Your task to perform on an android device: What's the weather going to be this weekend? Image 0: 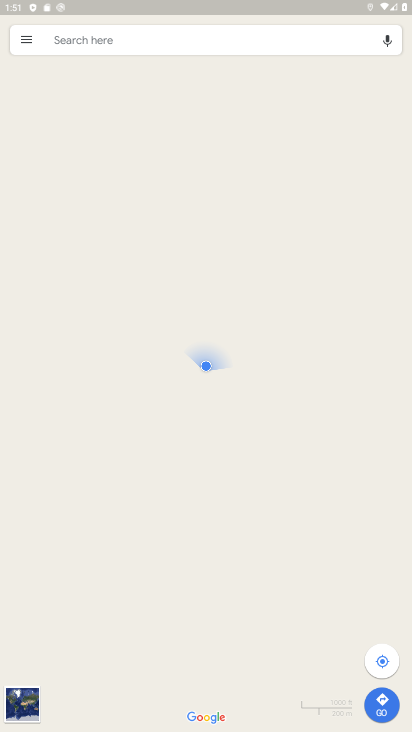
Step 0: press home button
Your task to perform on an android device: What's the weather going to be this weekend? Image 1: 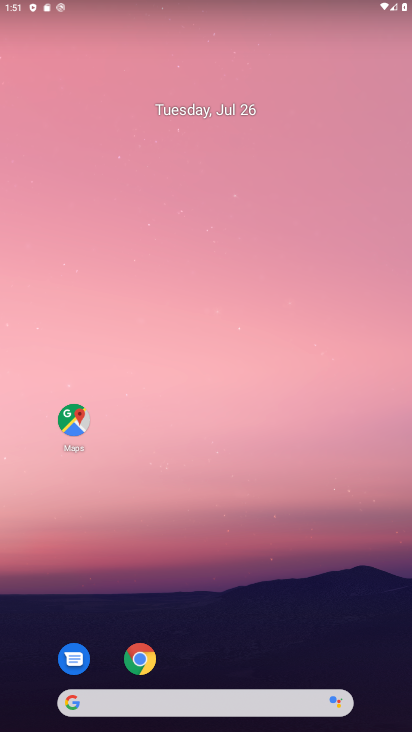
Step 1: click (176, 711)
Your task to perform on an android device: What's the weather going to be this weekend? Image 2: 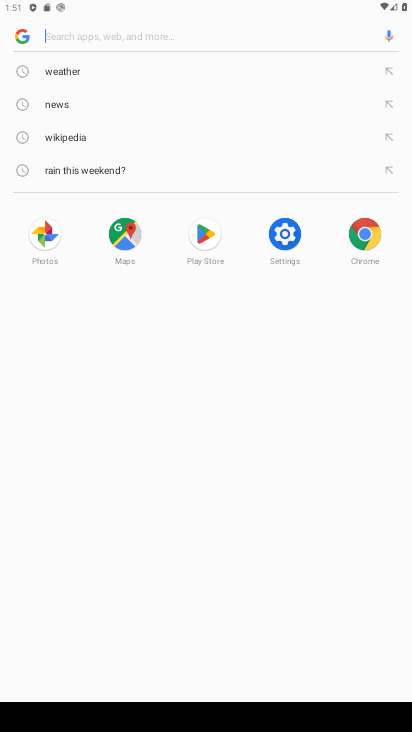
Step 2: type "what's the weather going to be this weekend"
Your task to perform on an android device: What's the weather going to be this weekend? Image 3: 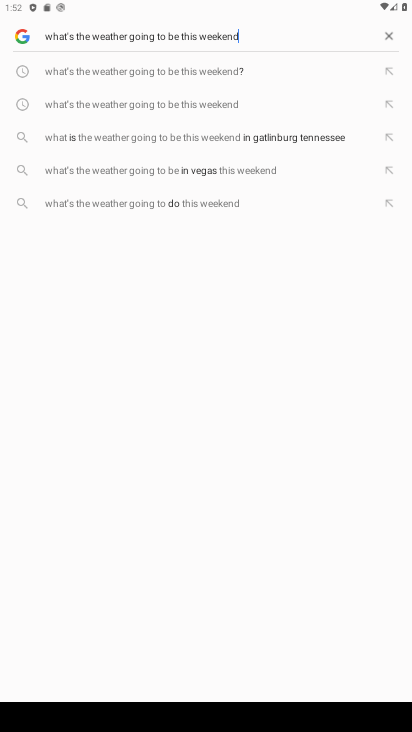
Step 3: click (148, 69)
Your task to perform on an android device: What's the weather going to be this weekend? Image 4: 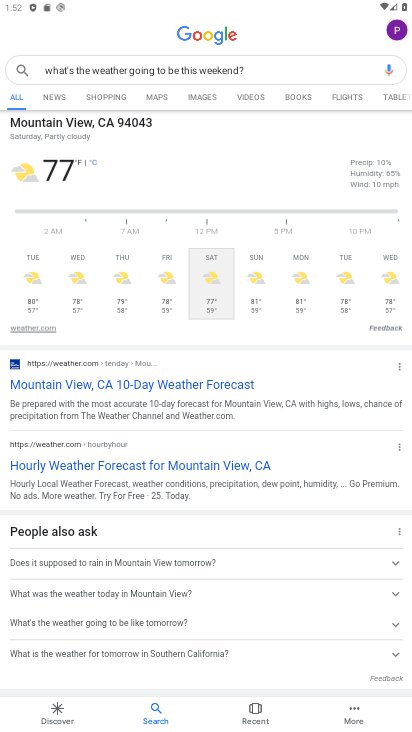
Step 4: task complete